Your task to perform on an android device: turn on priority inbox in the gmail app Image 0: 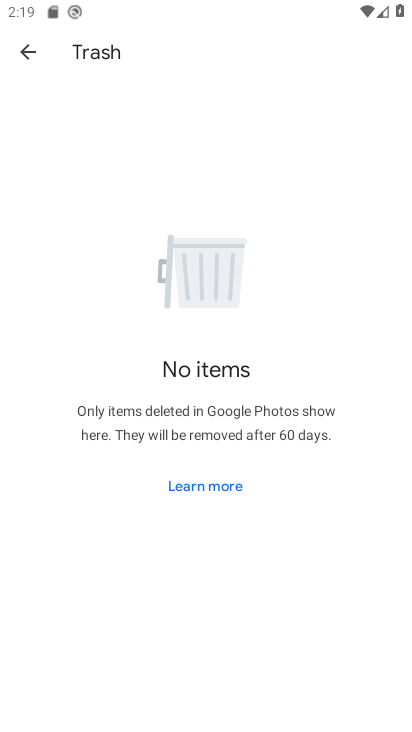
Step 0: press home button
Your task to perform on an android device: turn on priority inbox in the gmail app Image 1: 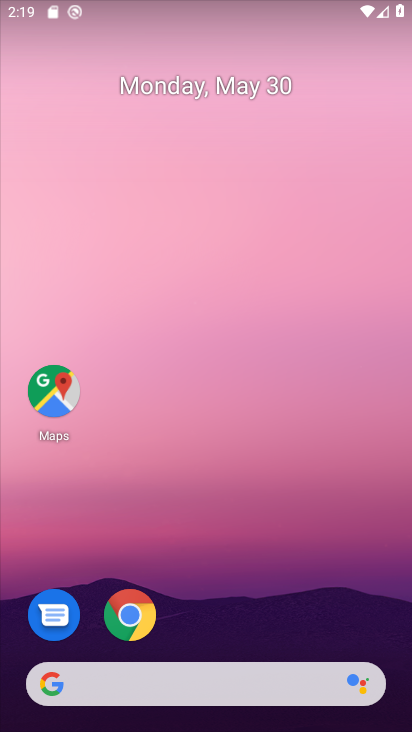
Step 1: drag from (234, 620) to (256, 17)
Your task to perform on an android device: turn on priority inbox in the gmail app Image 2: 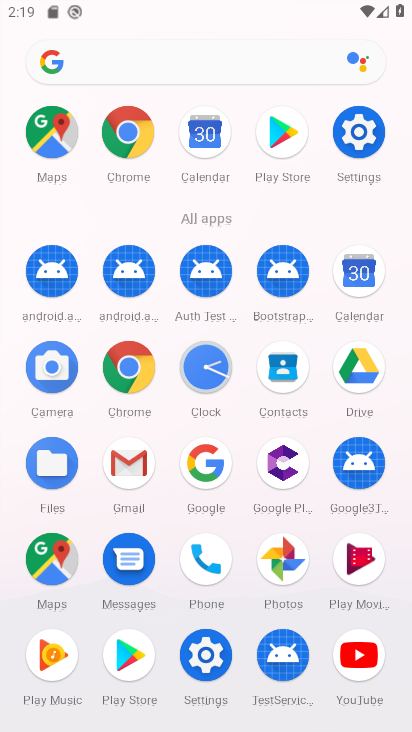
Step 2: click (134, 457)
Your task to perform on an android device: turn on priority inbox in the gmail app Image 3: 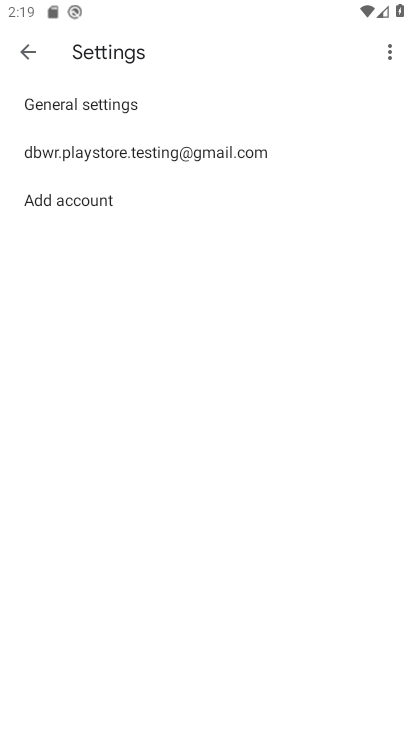
Step 3: click (84, 139)
Your task to perform on an android device: turn on priority inbox in the gmail app Image 4: 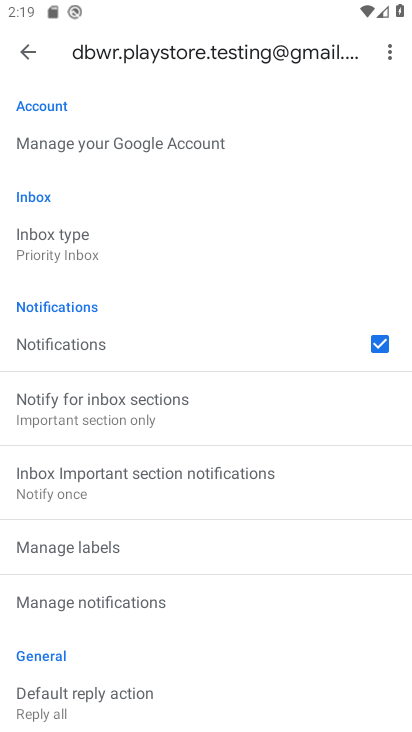
Step 4: task complete